Your task to perform on an android device: move an email to a new category in the gmail app Image 0: 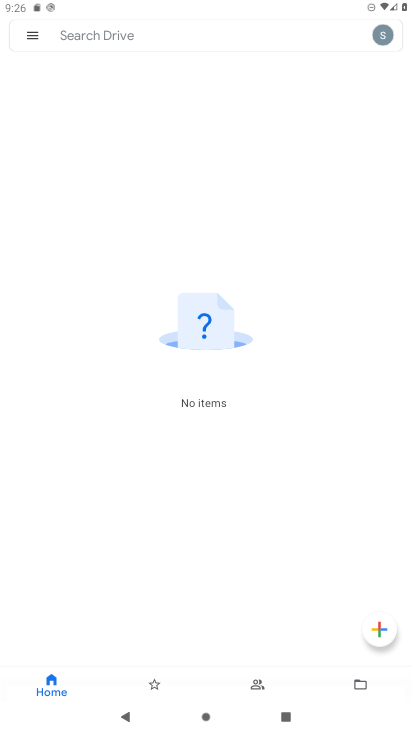
Step 0: press home button
Your task to perform on an android device: move an email to a new category in the gmail app Image 1: 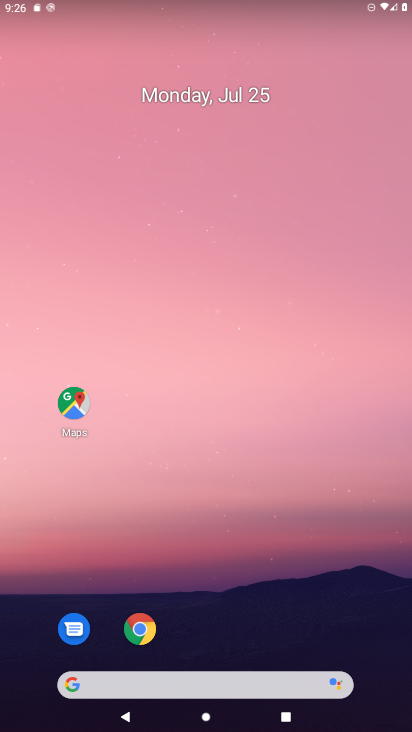
Step 1: drag from (222, 651) to (194, 0)
Your task to perform on an android device: move an email to a new category in the gmail app Image 2: 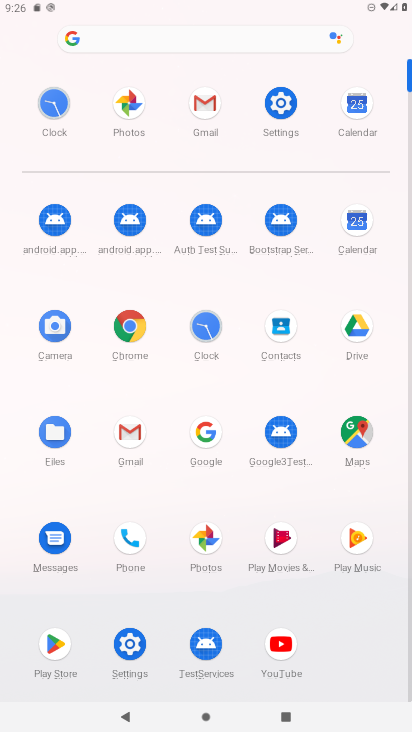
Step 2: click (204, 107)
Your task to perform on an android device: move an email to a new category in the gmail app Image 3: 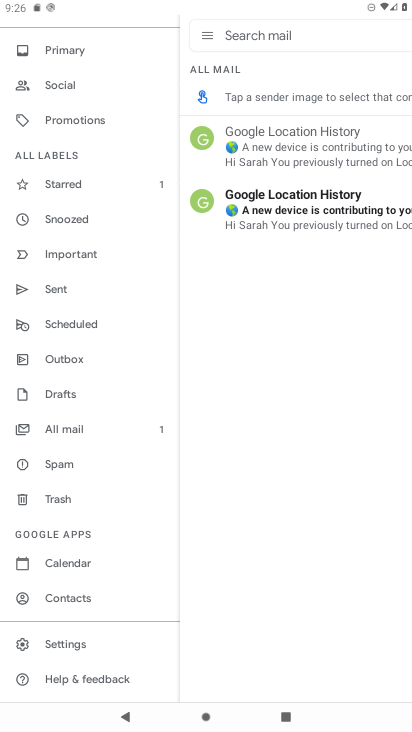
Step 3: click (266, 137)
Your task to perform on an android device: move an email to a new category in the gmail app Image 4: 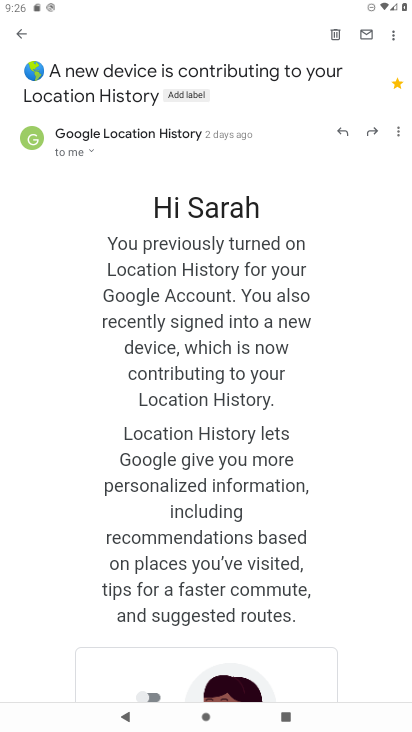
Step 4: click (392, 35)
Your task to perform on an android device: move an email to a new category in the gmail app Image 5: 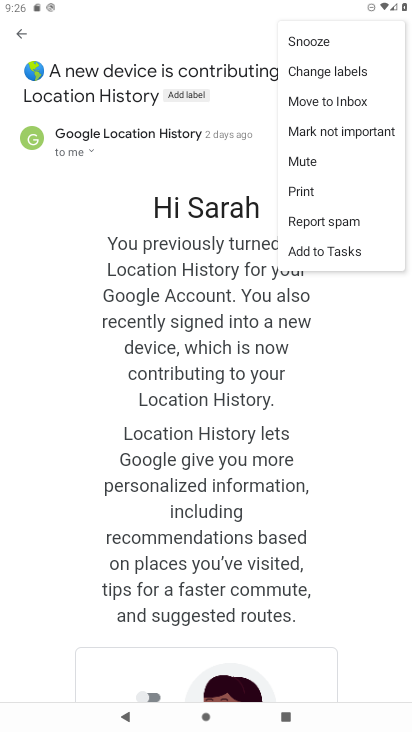
Step 5: click (324, 128)
Your task to perform on an android device: move an email to a new category in the gmail app Image 6: 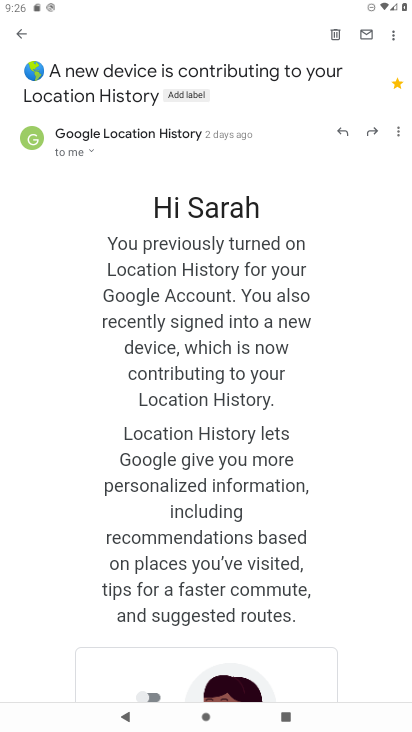
Step 6: task complete